Your task to perform on an android device: Open a new private tab in Chrome Image 0: 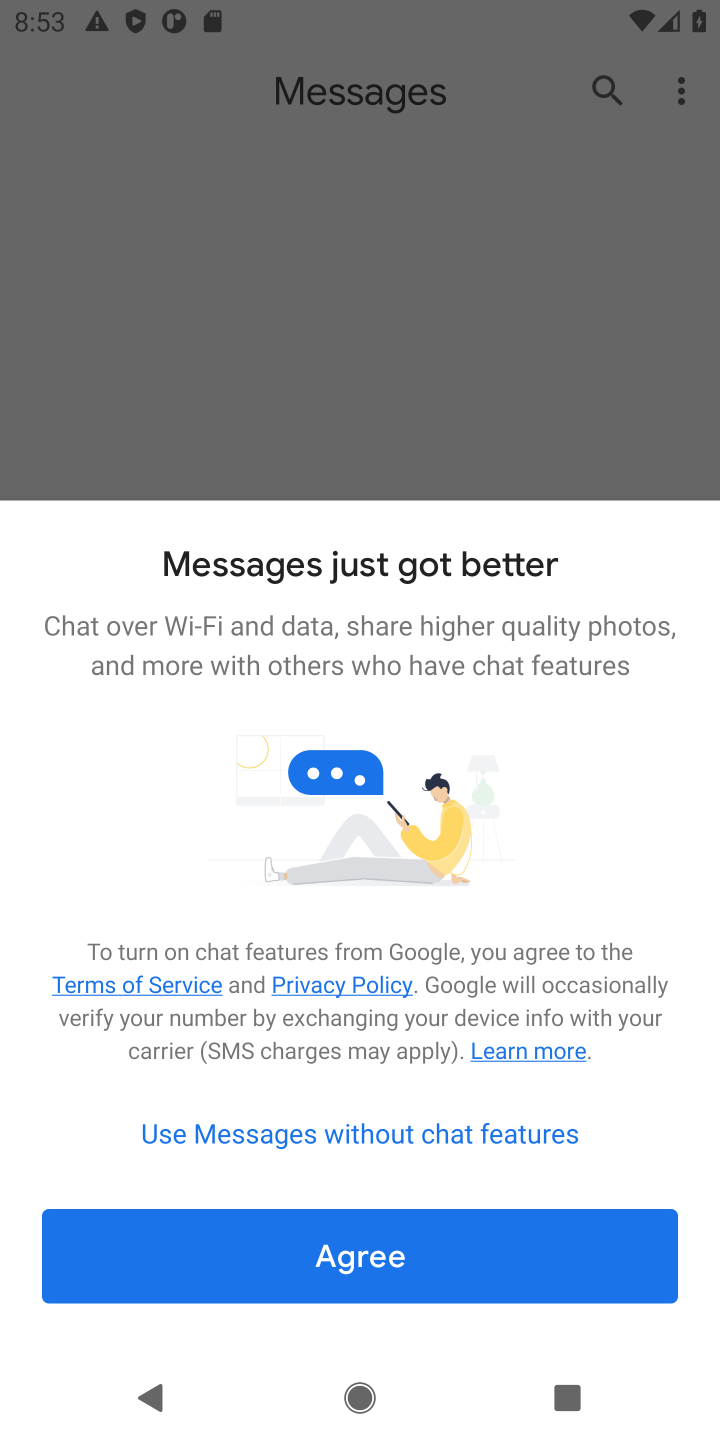
Step 0: press home button
Your task to perform on an android device: Open a new private tab in Chrome Image 1: 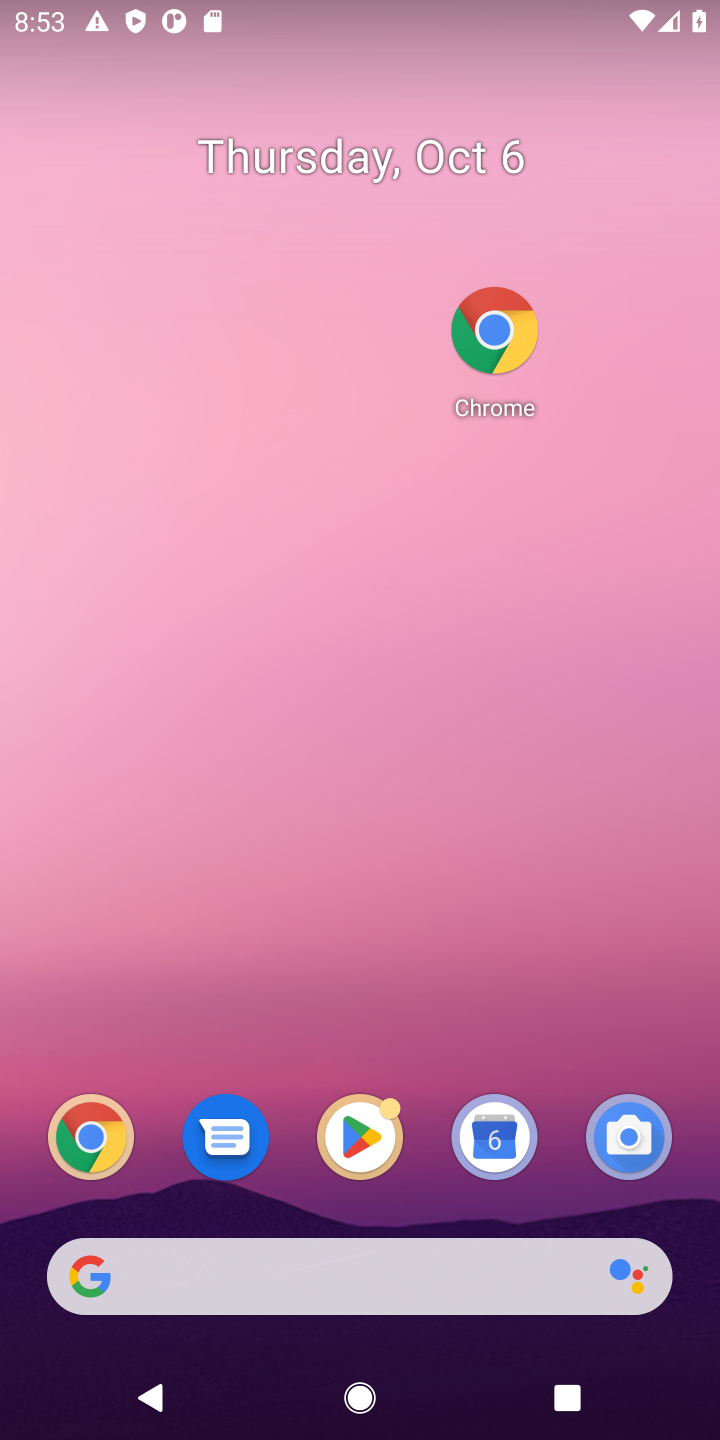
Step 1: click (90, 1147)
Your task to perform on an android device: Open a new private tab in Chrome Image 2: 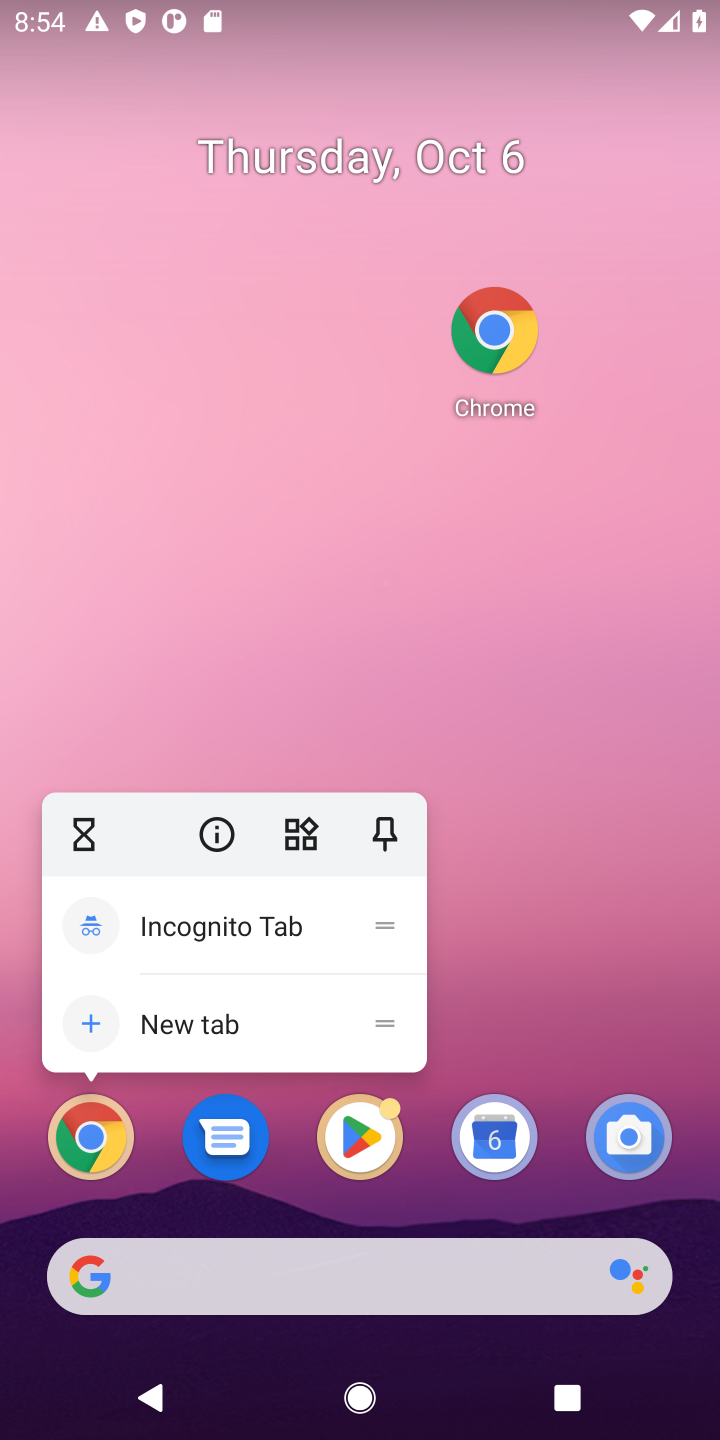
Step 2: click (90, 1147)
Your task to perform on an android device: Open a new private tab in Chrome Image 3: 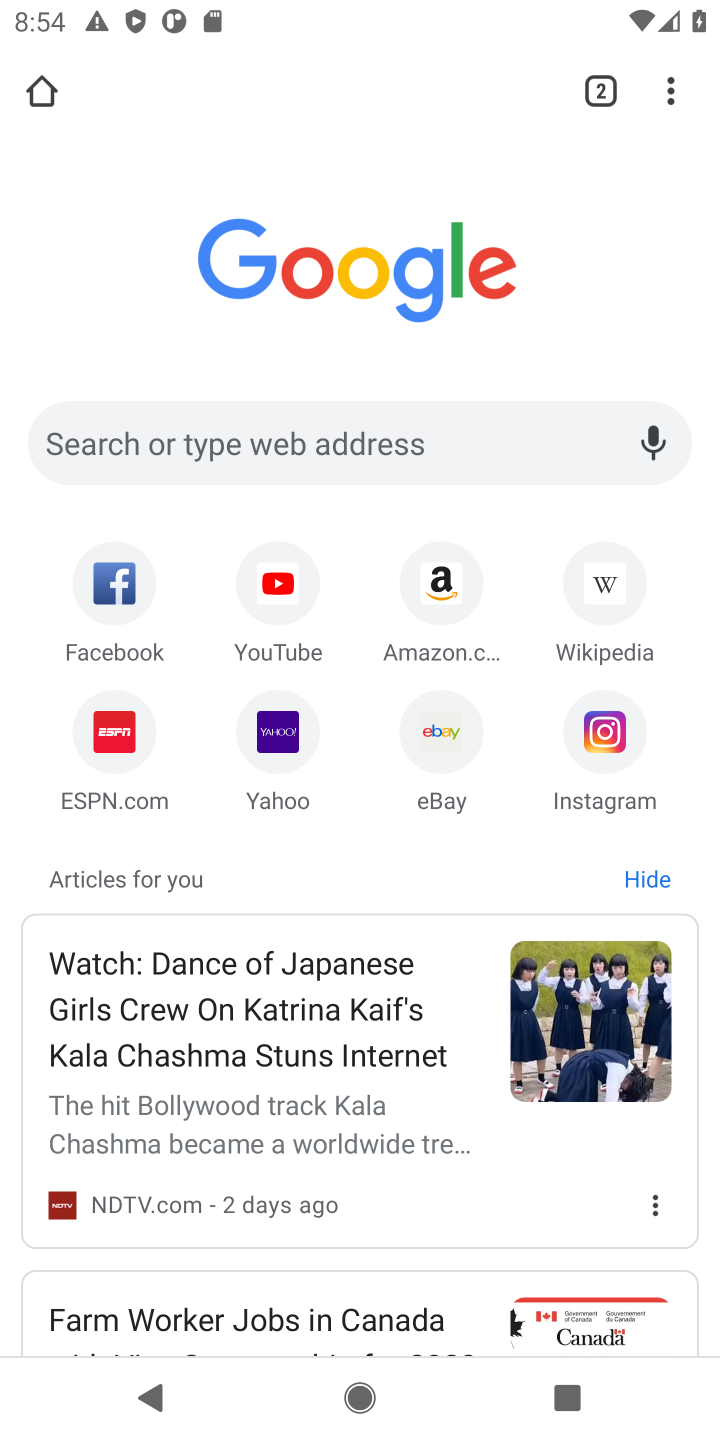
Step 3: click (666, 93)
Your task to perform on an android device: Open a new private tab in Chrome Image 4: 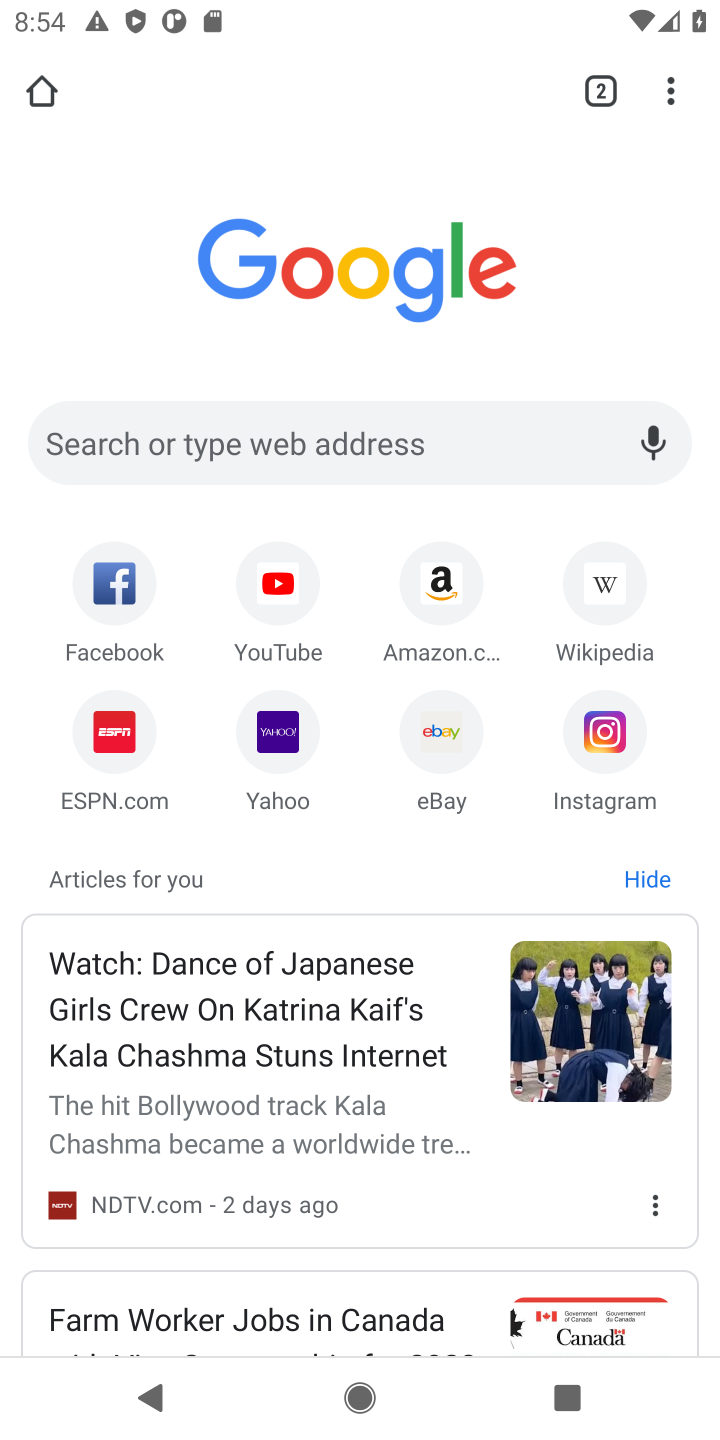
Step 4: click (678, 90)
Your task to perform on an android device: Open a new private tab in Chrome Image 5: 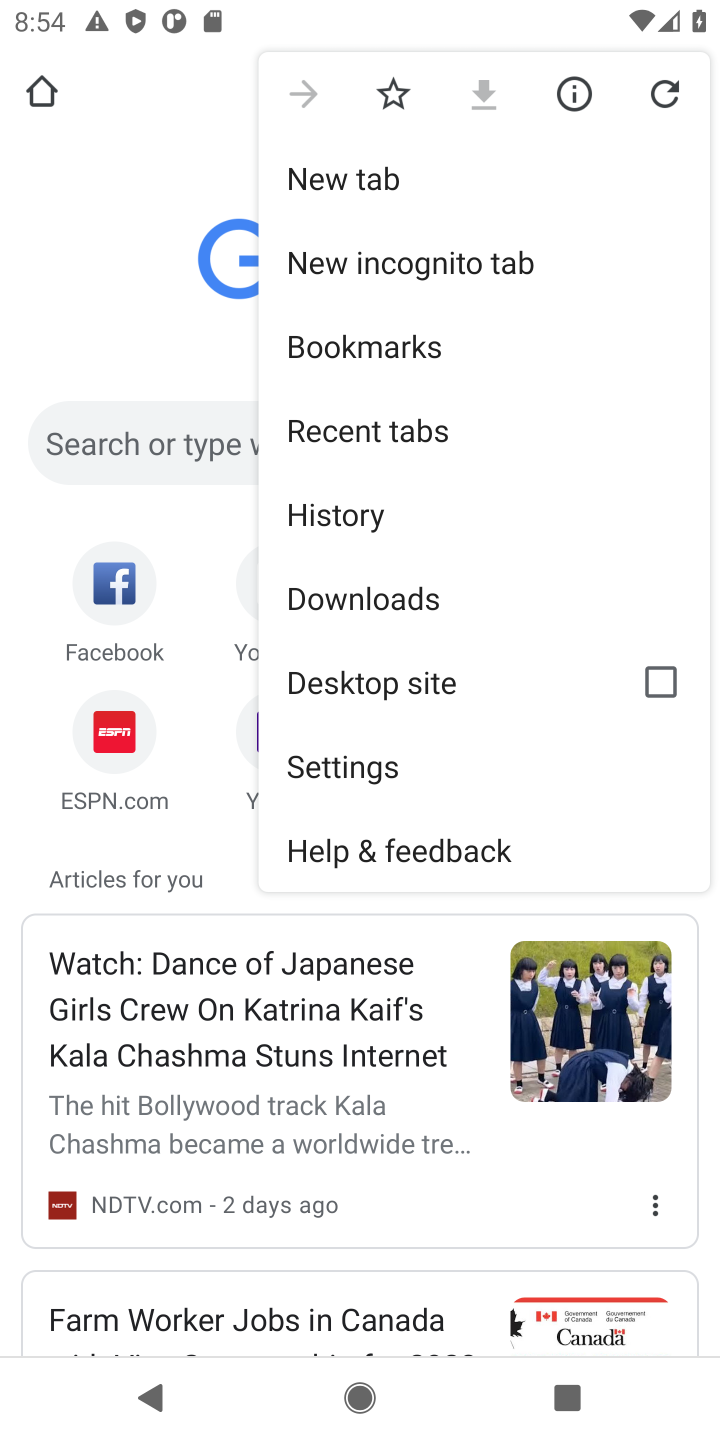
Step 5: click (330, 187)
Your task to perform on an android device: Open a new private tab in Chrome Image 6: 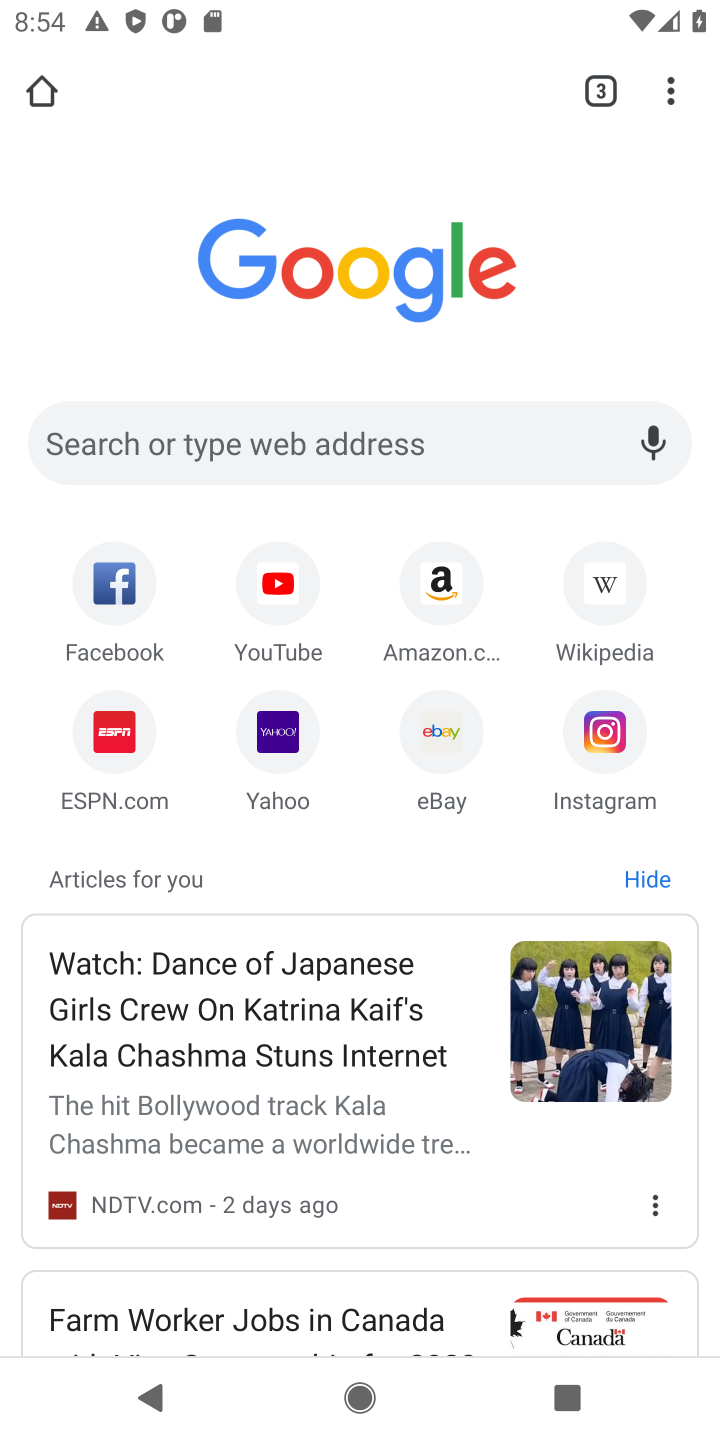
Step 6: task complete